Your task to perform on an android device: turn on the 24-hour format for clock Image 0: 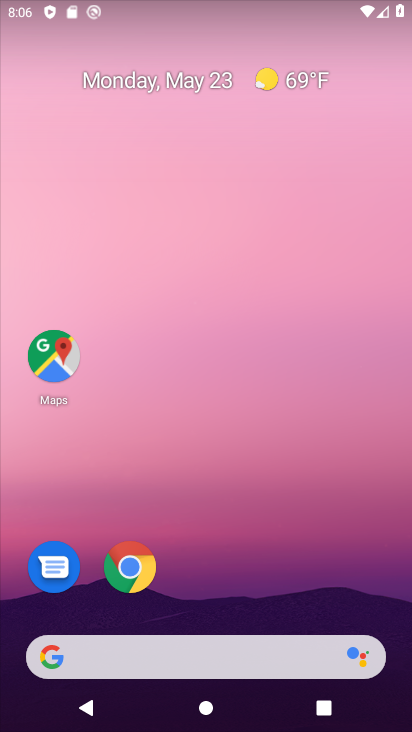
Step 0: drag from (204, 601) to (243, 0)
Your task to perform on an android device: turn on the 24-hour format for clock Image 1: 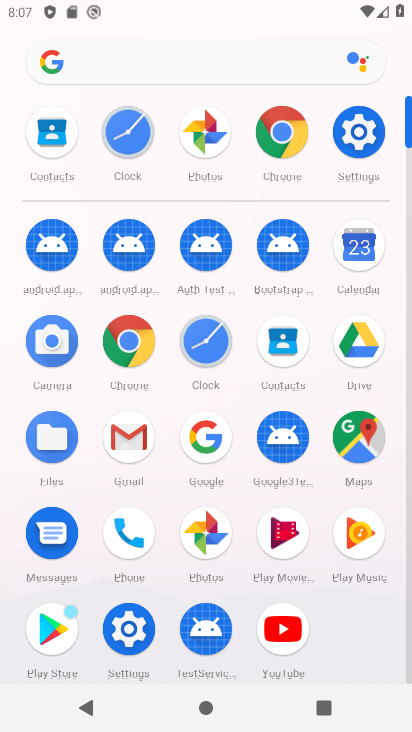
Step 1: click (365, 153)
Your task to perform on an android device: turn on the 24-hour format for clock Image 2: 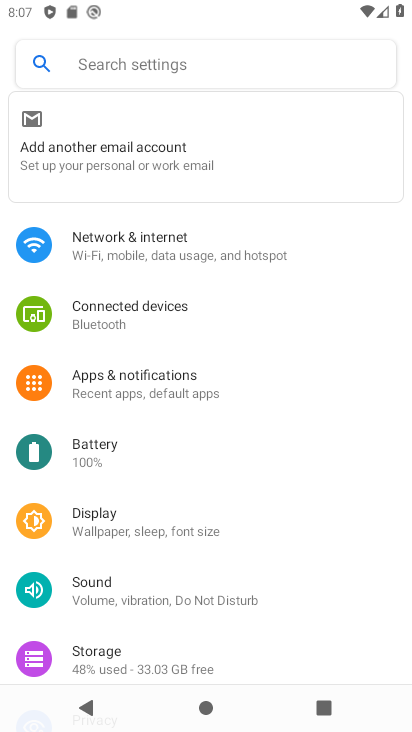
Step 2: drag from (205, 589) to (207, 317)
Your task to perform on an android device: turn on the 24-hour format for clock Image 3: 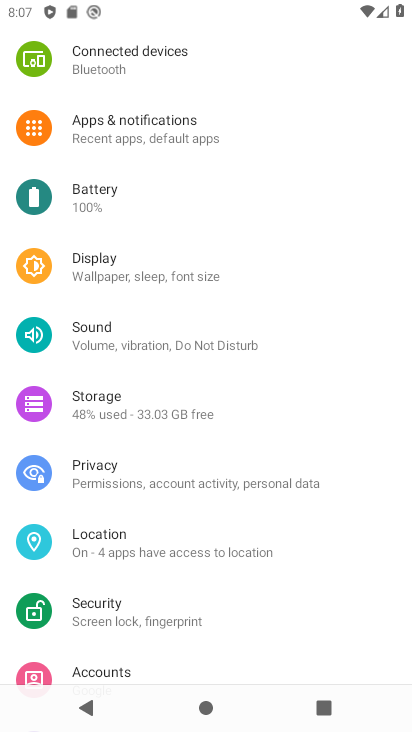
Step 3: drag from (111, 635) to (137, 373)
Your task to perform on an android device: turn on the 24-hour format for clock Image 4: 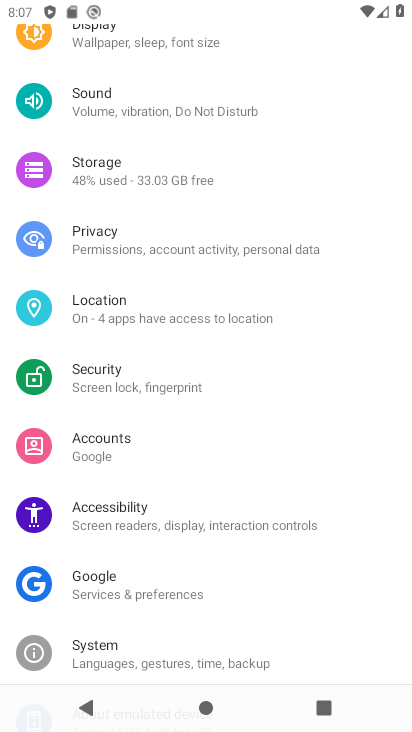
Step 4: click (124, 658)
Your task to perform on an android device: turn on the 24-hour format for clock Image 5: 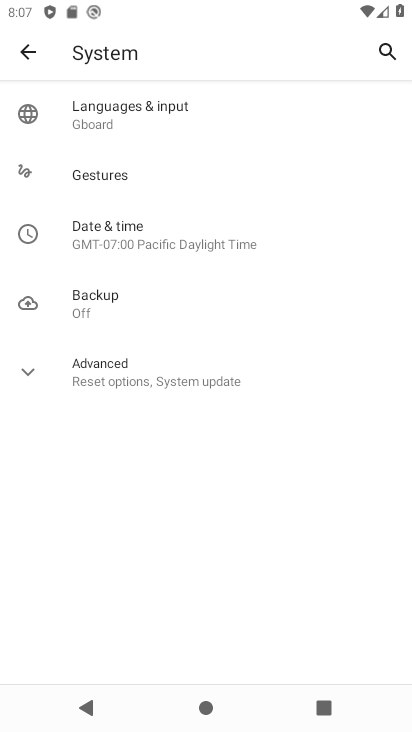
Step 5: click (157, 247)
Your task to perform on an android device: turn on the 24-hour format for clock Image 6: 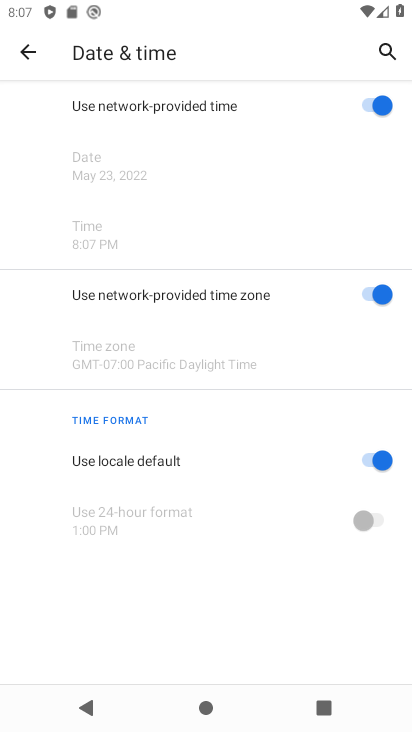
Step 6: click (364, 463)
Your task to perform on an android device: turn on the 24-hour format for clock Image 7: 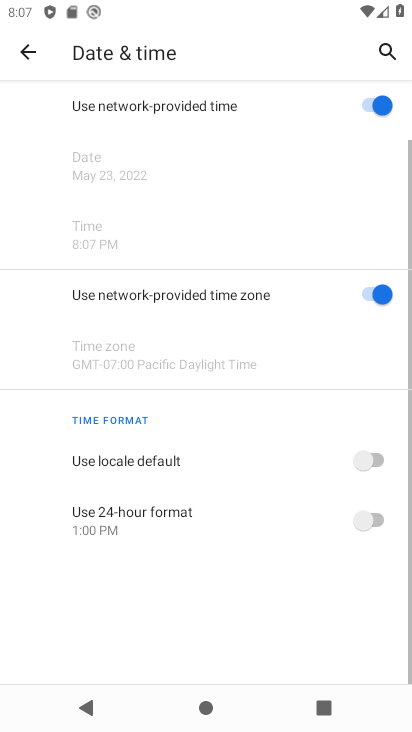
Step 7: click (387, 523)
Your task to perform on an android device: turn on the 24-hour format for clock Image 8: 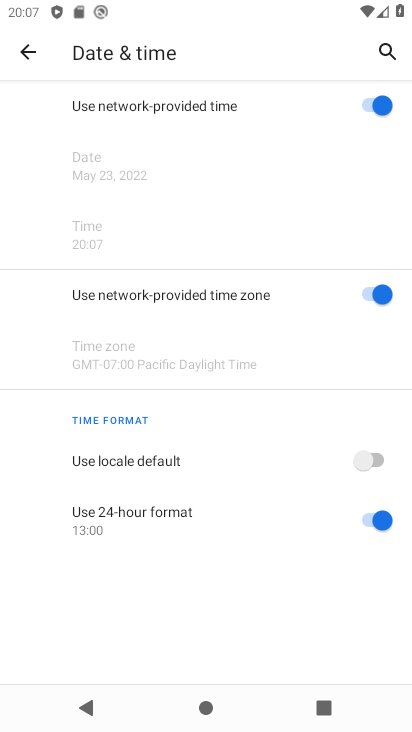
Step 8: task complete